Your task to perform on an android device: toggle improve location accuracy Image 0: 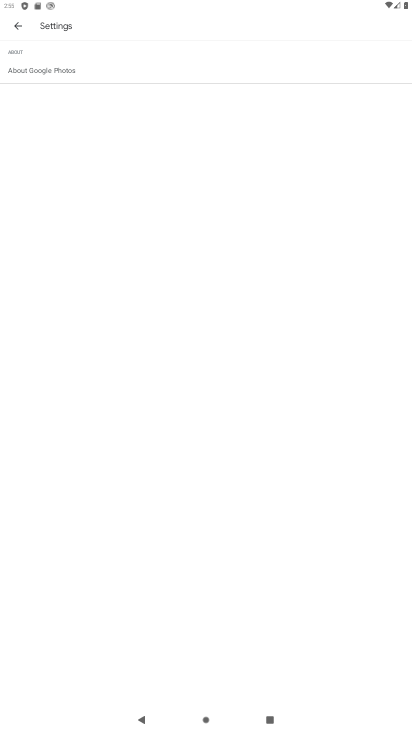
Step 0: press home button
Your task to perform on an android device: toggle improve location accuracy Image 1: 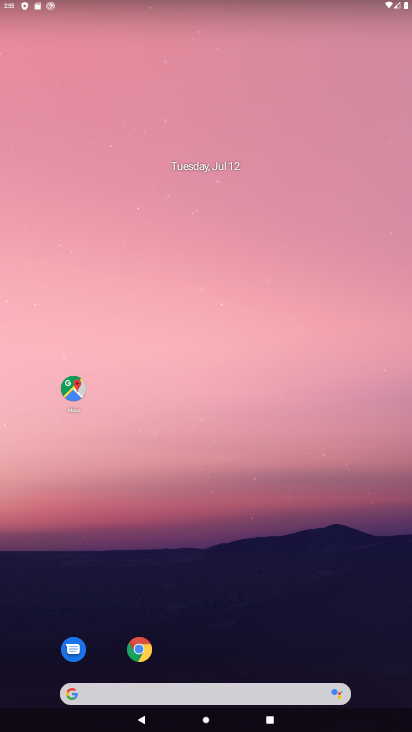
Step 1: drag from (220, 693) to (284, 327)
Your task to perform on an android device: toggle improve location accuracy Image 2: 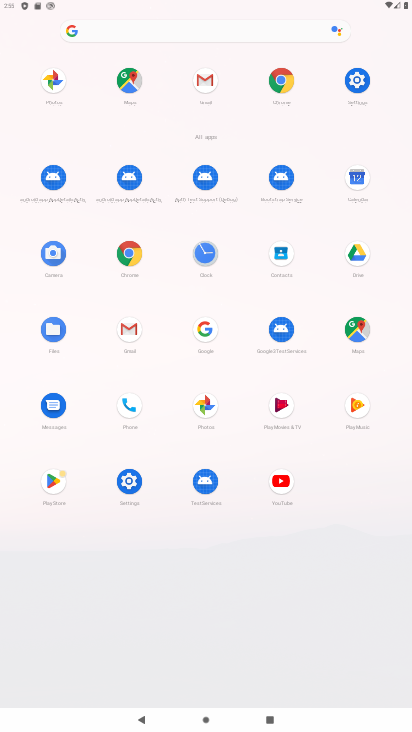
Step 2: click (357, 84)
Your task to perform on an android device: toggle improve location accuracy Image 3: 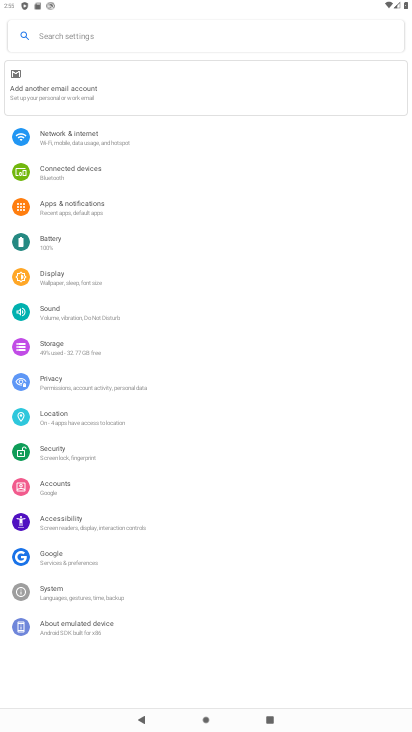
Step 3: click (77, 411)
Your task to perform on an android device: toggle improve location accuracy Image 4: 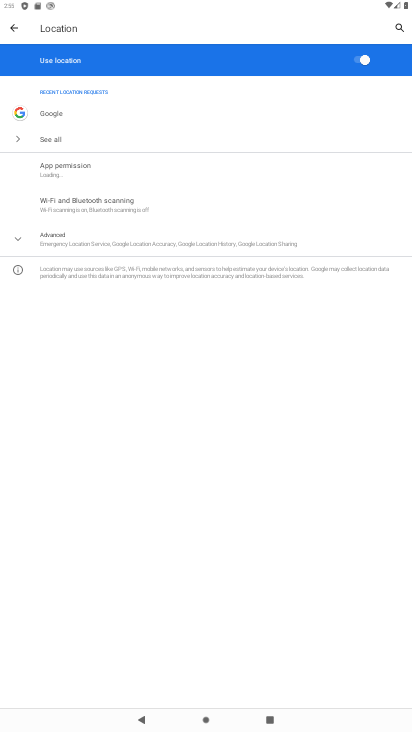
Step 4: click (63, 237)
Your task to perform on an android device: toggle improve location accuracy Image 5: 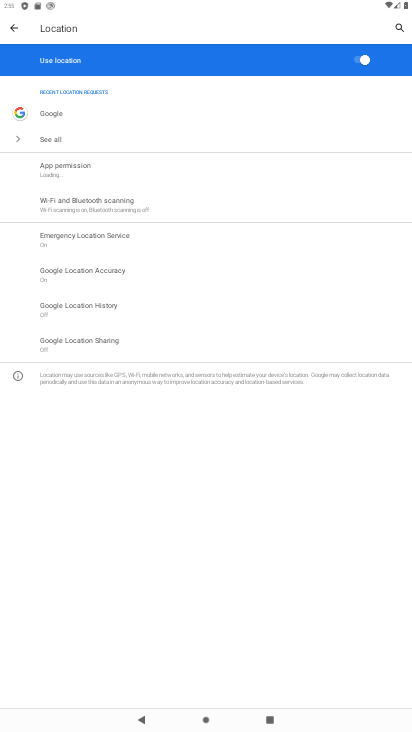
Step 5: click (80, 270)
Your task to perform on an android device: toggle improve location accuracy Image 6: 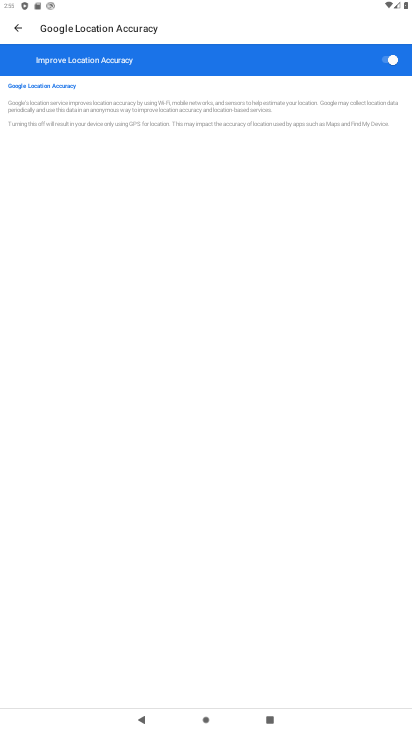
Step 6: click (385, 60)
Your task to perform on an android device: toggle improve location accuracy Image 7: 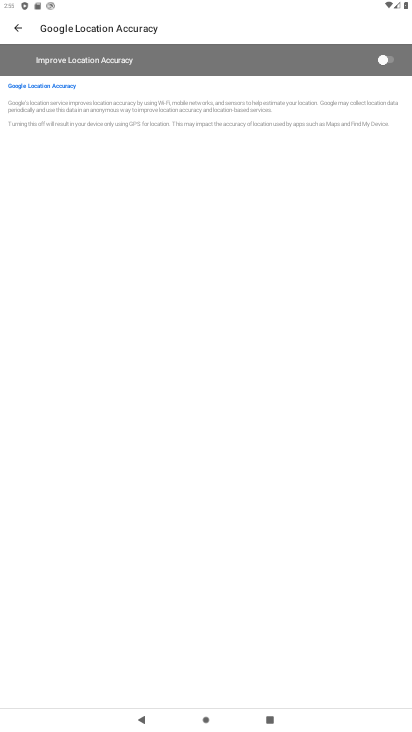
Step 7: task complete